Your task to perform on an android device: turn notification dots on Image 0: 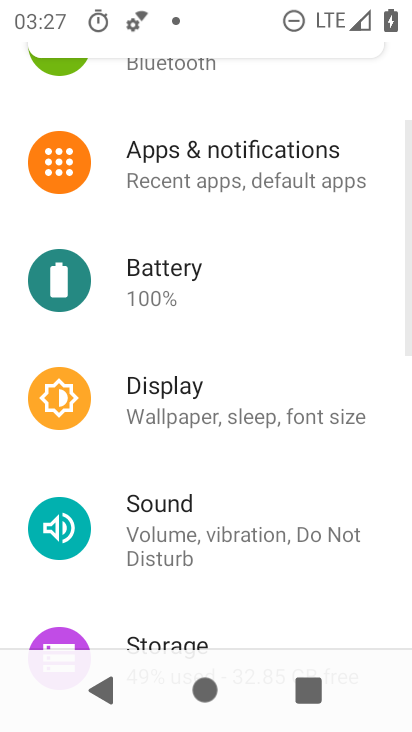
Step 0: press home button
Your task to perform on an android device: turn notification dots on Image 1: 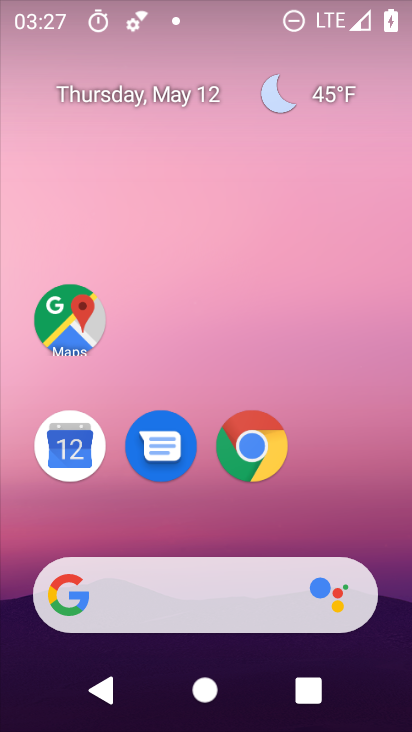
Step 1: drag from (217, 524) to (223, 199)
Your task to perform on an android device: turn notification dots on Image 2: 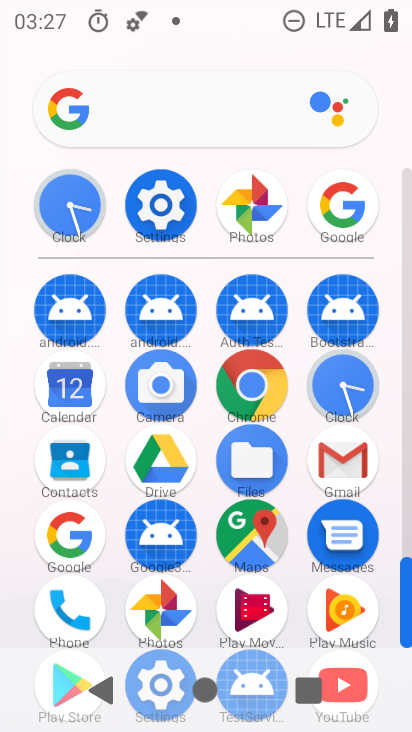
Step 2: click (184, 196)
Your task to perform on an android device: turn notification dots on Image 3: 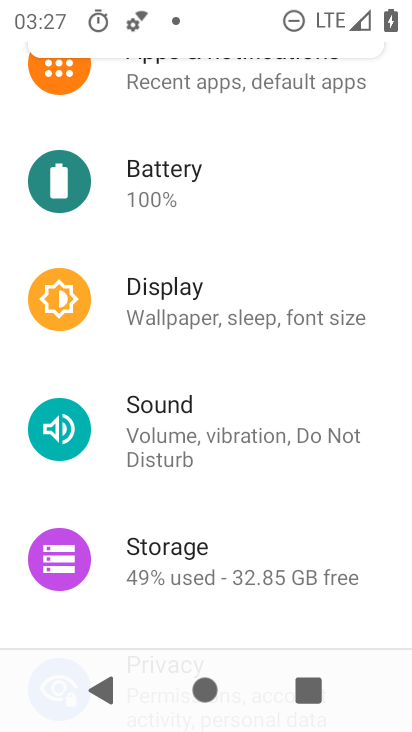
Step 3: drag from (245, 235) to (278, 490)
Your task to perform on an android device: turn notification dots on Image 4: 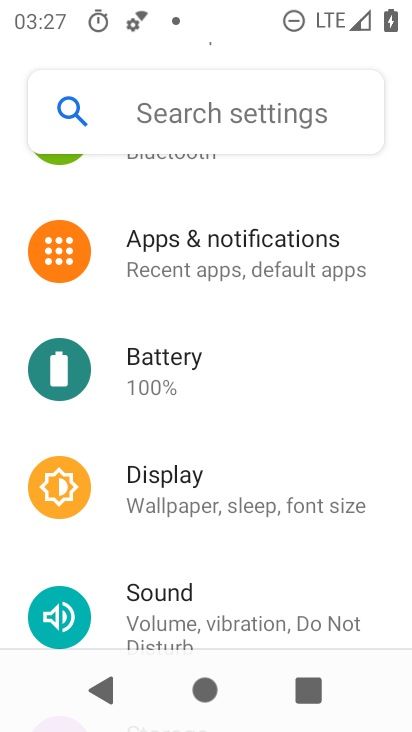
Step 4: click (243, 294)
Your task to perform on an android device: turn notification dots on Image 5: 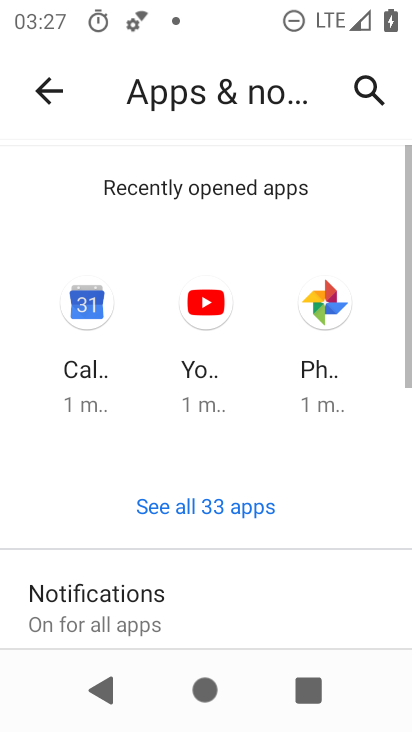
Step 5: click (202, 605)
Your task to perform on an android device: turn notification dots on Image 6: 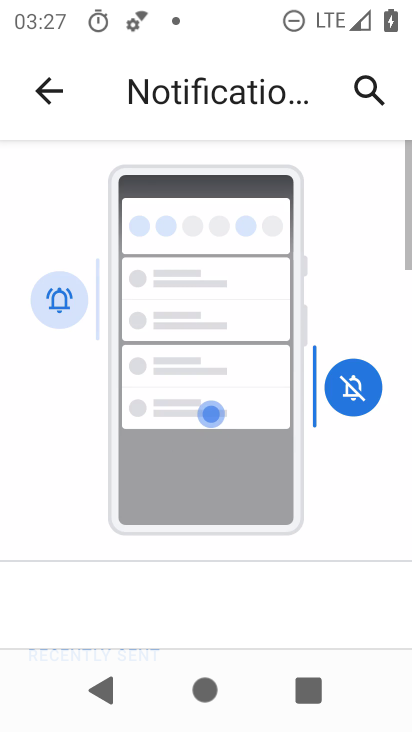
Step 6: drag from (232, 579) to (270, 188)
Your task to perform on an android device: turn notification dots on Image 7: 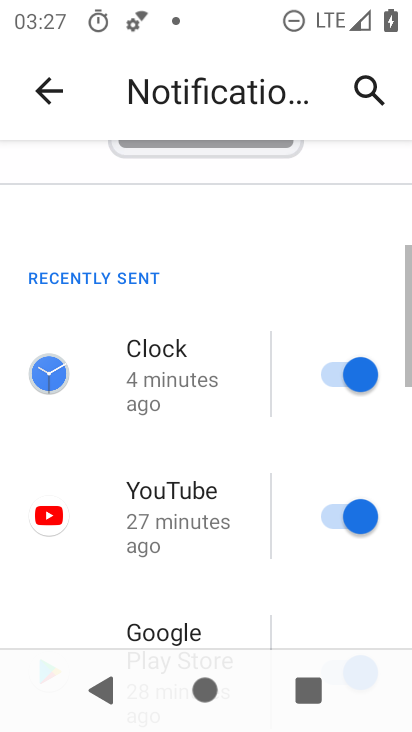
Step 7: drag from (233, 582) to (285, 265)
Your task to perform on an android device: turn notification dots on Image 8: 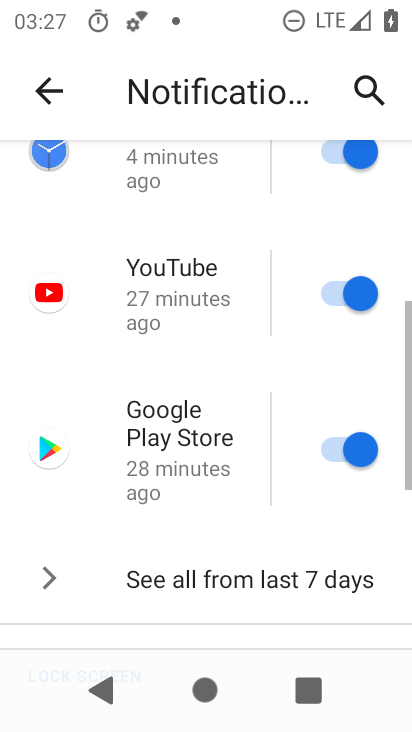
Step 8: drag from (254, 488) to (255, 225)
Your task to perform on an android device: turn notification dots on Image 9: 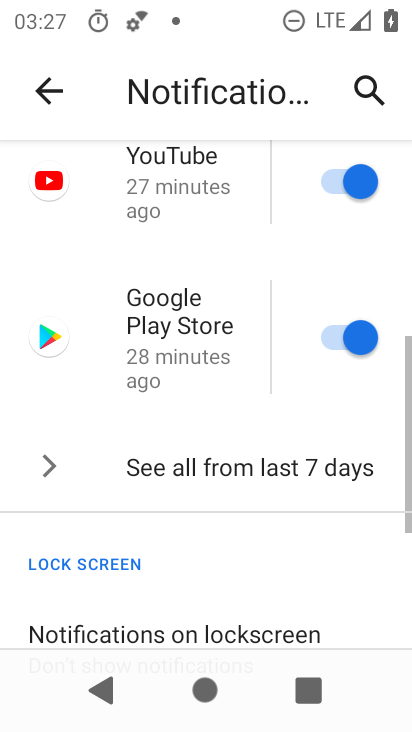
Step 9: drag from (236, 587) to (265, 301)
Your task to perform on an android device: turn notification dots on Image 10: 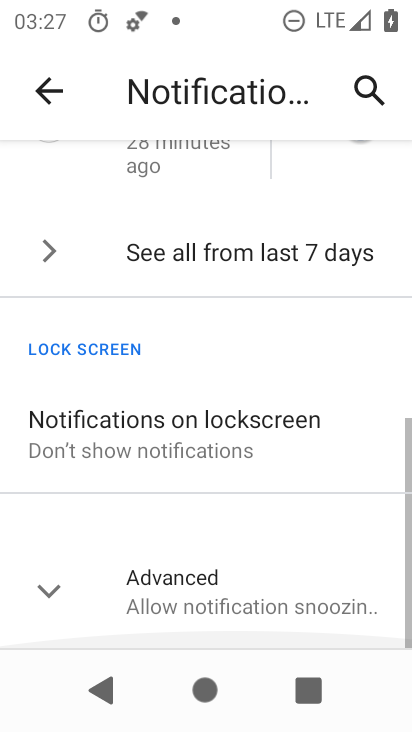
Step 10: drag from (265, 546) to (282, 381)
Your task to perform on an android device: turn notification dots on Image 11: 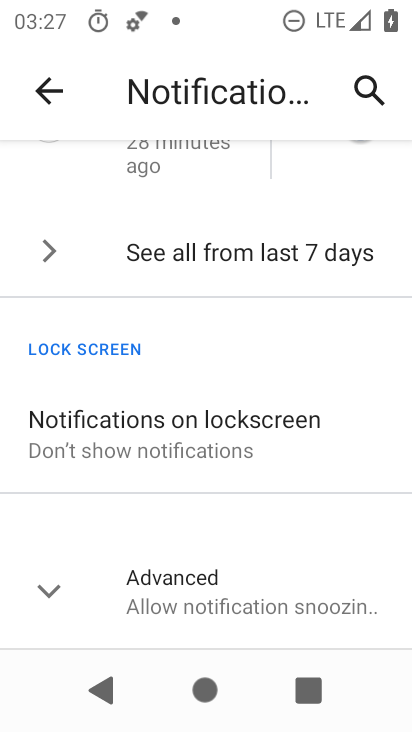
Step 11: click (178, 585)
Your task to perform on an android device: turn notification dots on Image 12: 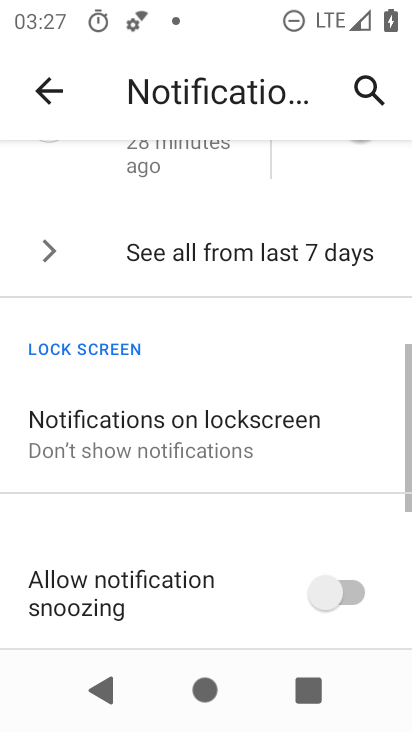
Step 12: drag from (247, 546) to (281, 238)
Your task to perform on an android device: turn notification dots on Image 13: 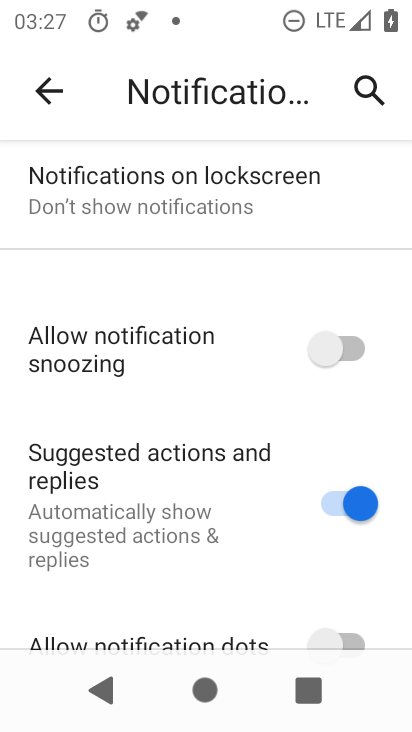
Step 13: drag from (288, 548) to (281, 312)
Your task to perform on an android device: turn notification dots on Image 14: 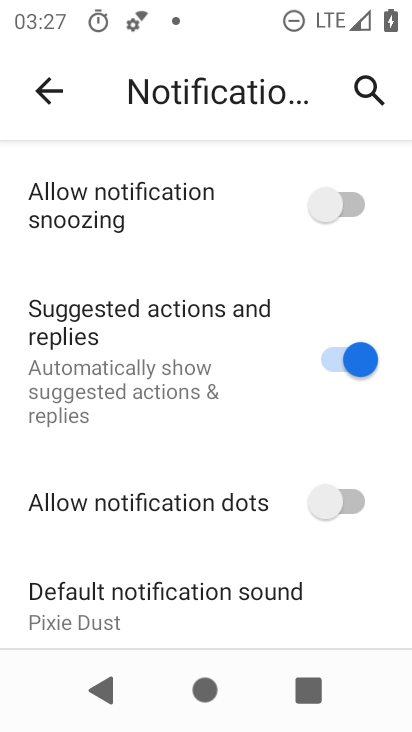
Step 14: click (346, 498)
Your task to perform on an android device: turn notification dots on Image 15: 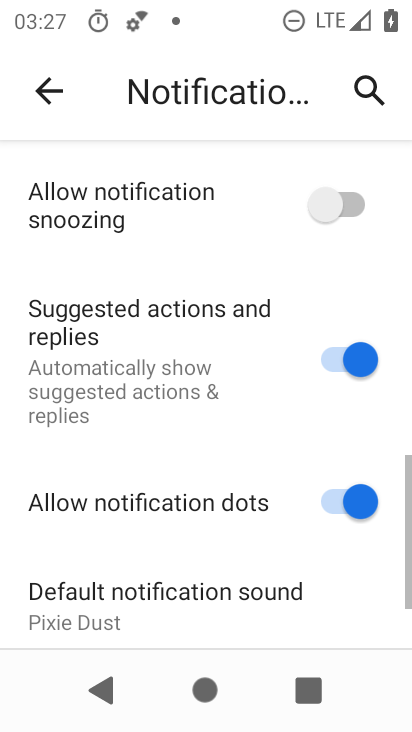
Step 15: task complete